Your task to perform on an android device: Open the calendar app, open the side menu, and click the "Day" option Image 0: 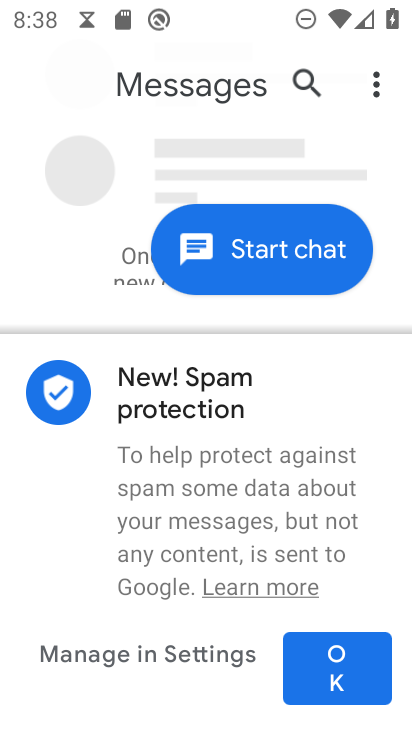
Step 0: press home button
Your task to perform on an android device: Open the calendar app, open the side menu, and click the "Day" option Image 1: 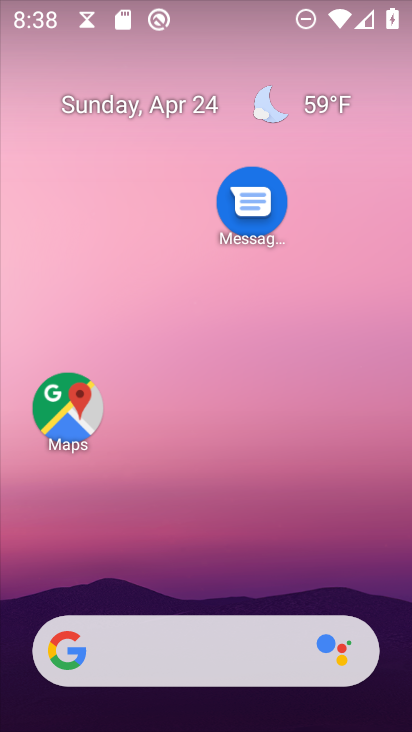
Step 1: drag from (174, 552) to (247, 122)
Your task to perform on an android device: Open the calendar app, open the side menu, and click the "Day" option Image 2: 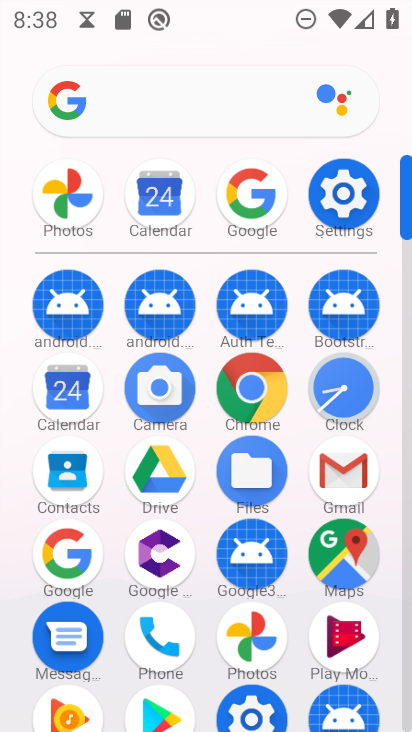
Step 2: click (69, 396)
Your task to perform on an android device: Open the calendar app, open the side menu, and click the "Day" option Image 3: 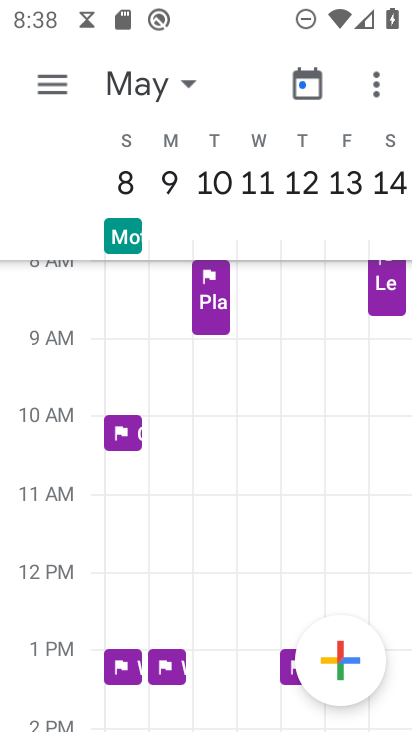
Step 3: click (61, 94)
Your task to perform on an android device: Open the calendar app, open the side menu, and click the "Day" option Image 4: 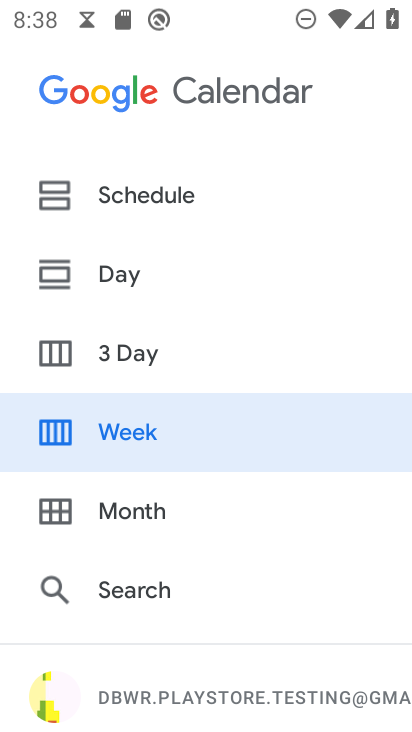
Step 4: click (119, 270)
Your task to perform on an android device: Open the calendar app, open the side menu, and click the "Day" option Image 5: 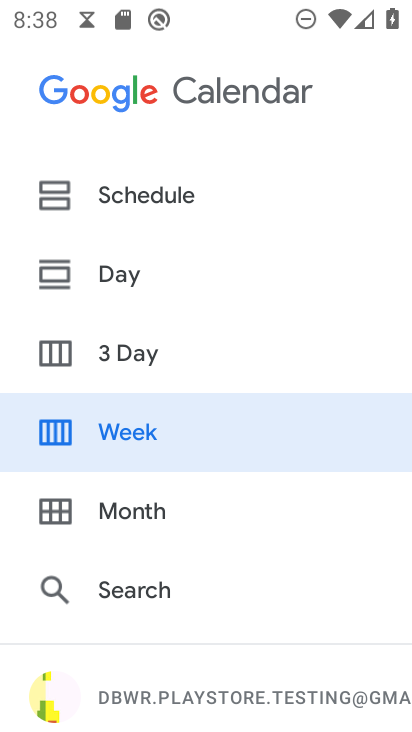
Step 5: click (121, 279)
Your task to perform on an android device: Open the calendar app, open the side menu, and click the "Day" option Image 6: 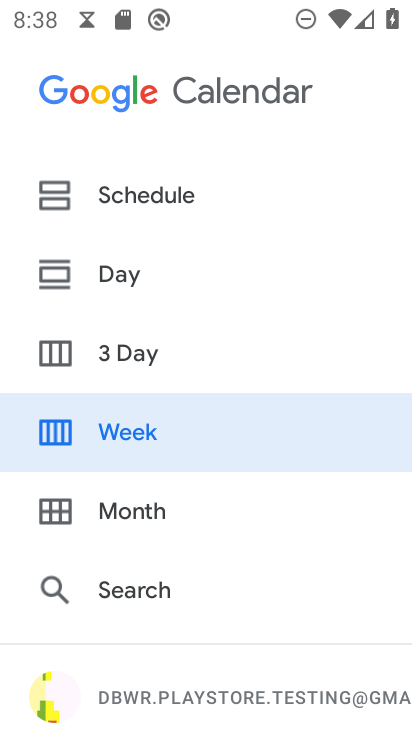
Step 6: click (130, 277)
Your task to perform on an android device: Open the calendar app, open the side menu, and click the "Day" option Image 7: 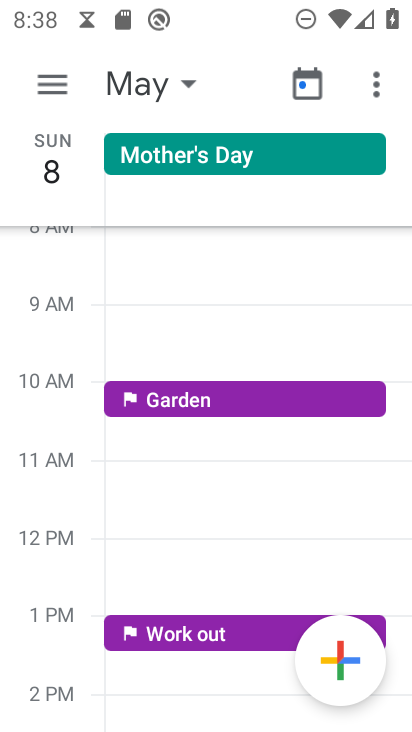
Step 7: task complete